Your task to perform on an android device: set the timer Image 0: 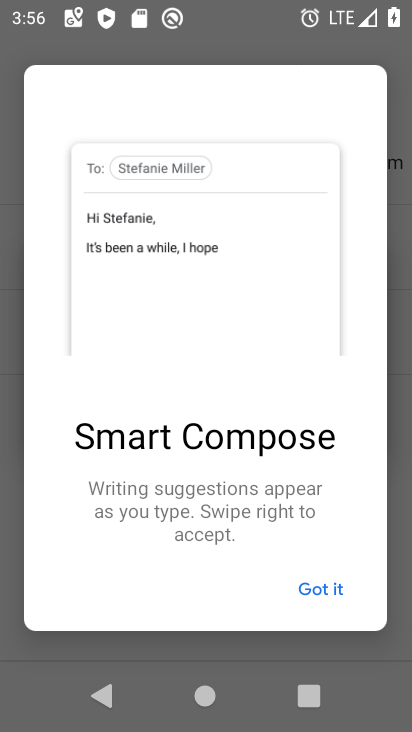
Step 0: press home button
Your task to perform on an android device: set the timer Image 1: 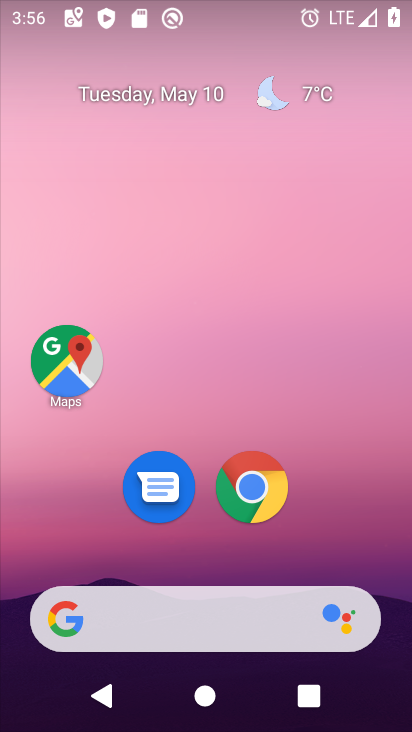
Step 1: drag from (312, 527) to (327, 116)
Your task to perform on an android device: set the timer Image 2: 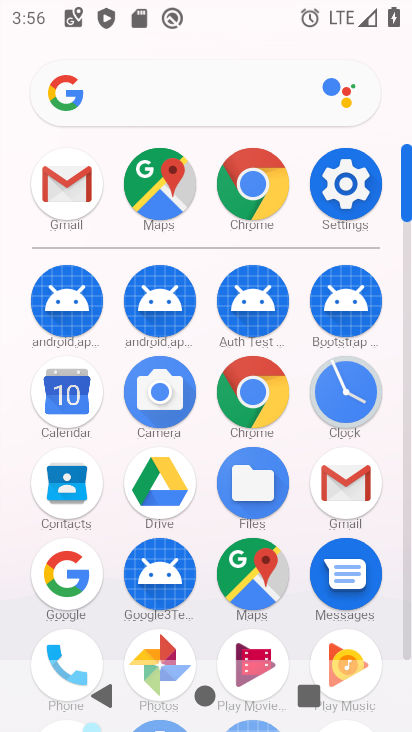
Step 2: click (356, 401)
Your task to perform on an android device: set the timer Image 3: 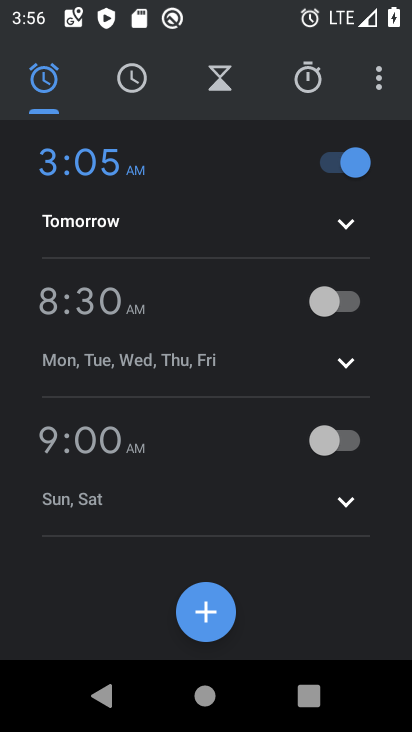
Step 3: click (226, 69)
Your task to perform on an android device: set the timer Image 4: 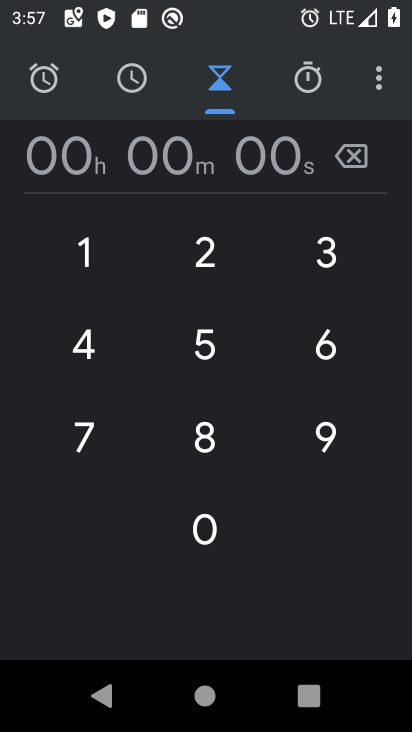
Step 4: click (220, 346)
Your task to perform on an android device: set the timer Image 5: 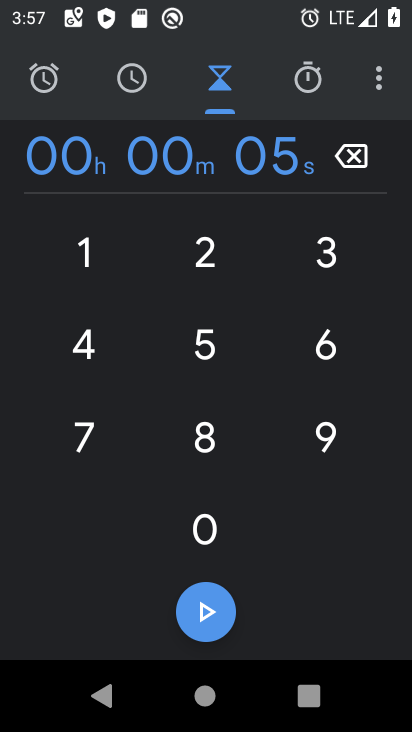
Step 5: task complete